Your task to perform on an android device: Go to Amazon Image 0: 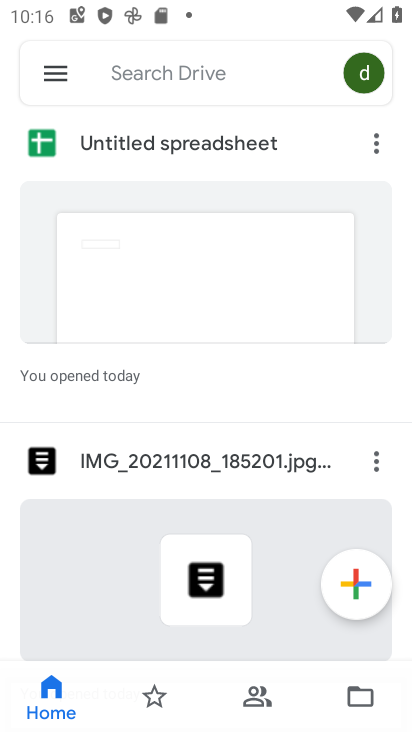
Step 0: press home button
Your task to perform on an android device: Go to Amazon Image 1: 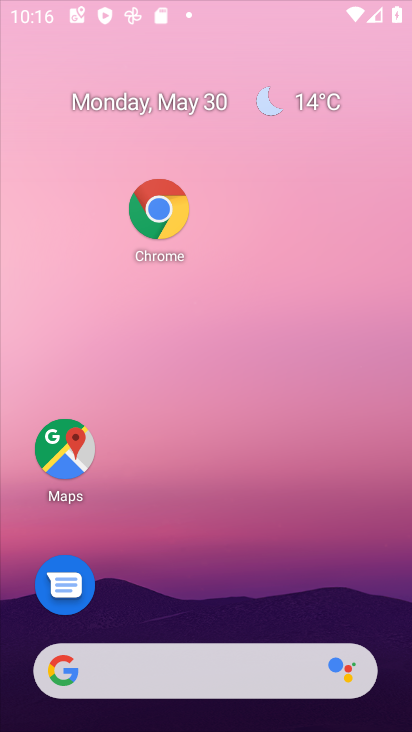
Step 1: drag from (230, 454) to (235, 10)
Your task to perform on an android device: Go to Amazon Image 2: 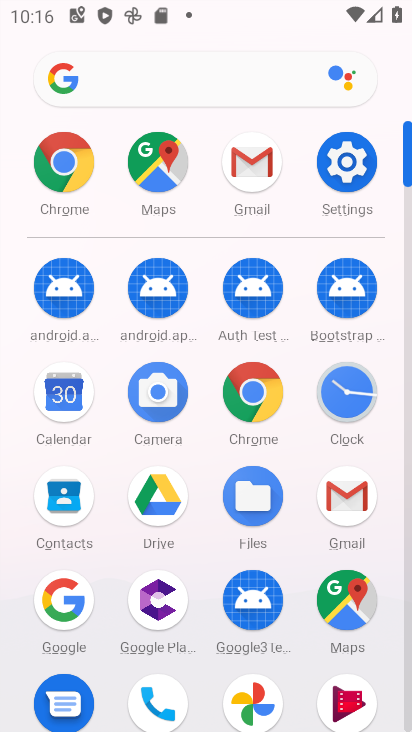
Step 2: click (250, 386)
Your task to perform on an android device: Go to Amazon Image 3: 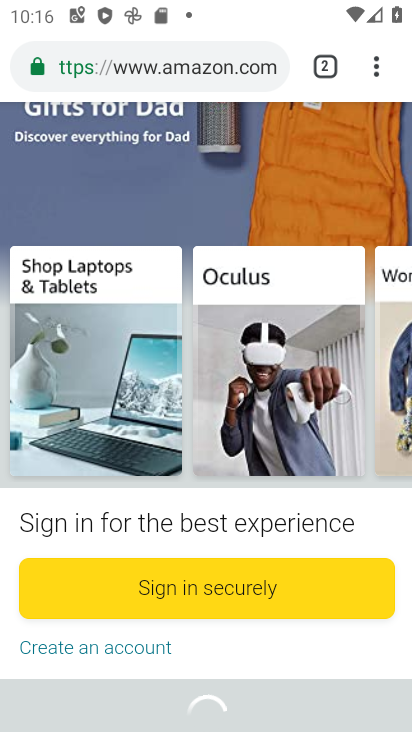
Step 3: task complete